Your task to perform on an android device: When is my next meeting? Image 0: 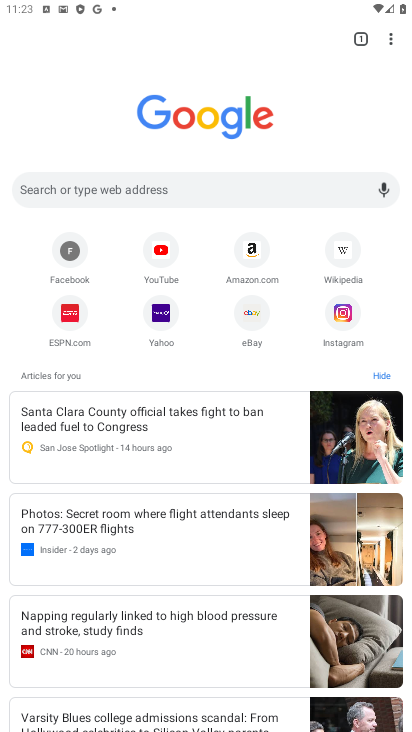
Step 0: press back button
Your task to perform on an android device: When is my next meeting? Image 1: 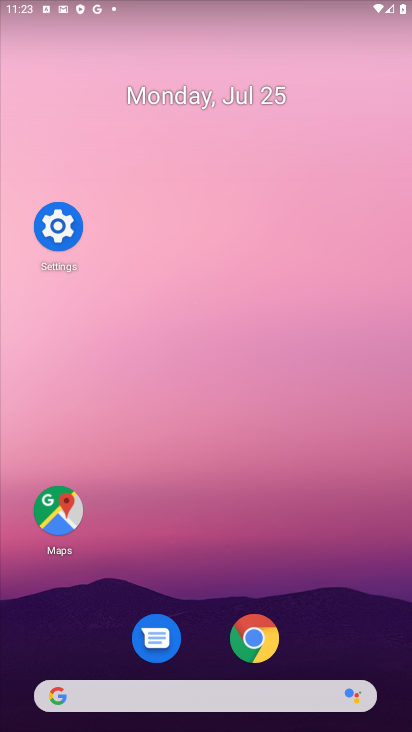
Step 1: drag from (311, 611) to (303, 231)
Your task to perform on an android device: When is my next meeting? Image 2: 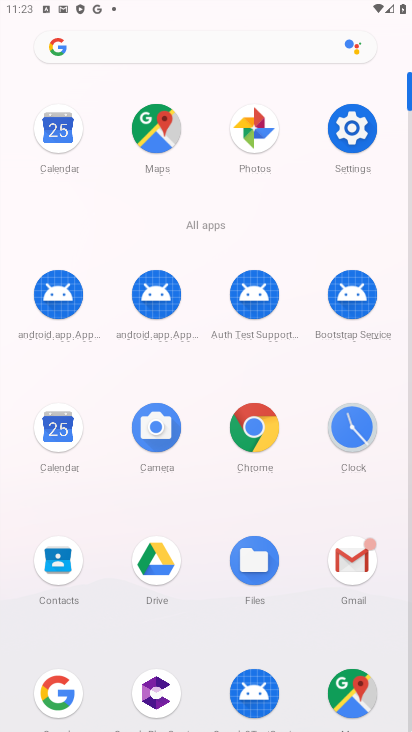
Step 2: click (43, 416)
Your task to perform on an android device: When is my next meeting? Image 3: 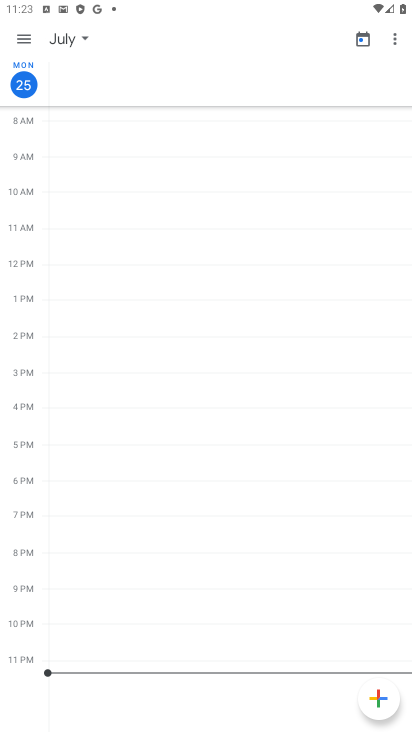
Step 3: task complete